Your task to perform on an android device: Go to Google maps Image 0: 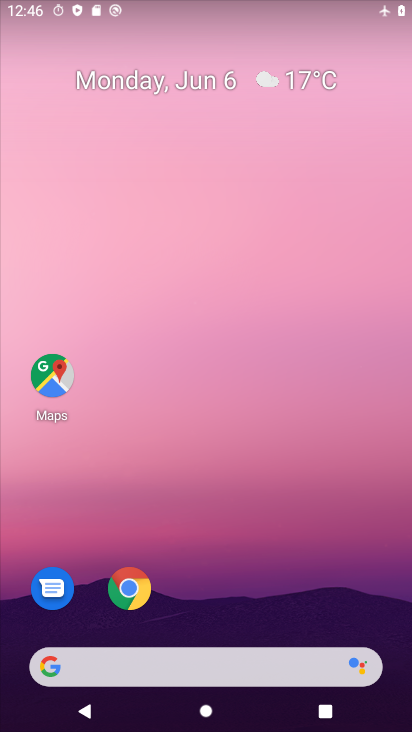
Step 0: click (49, 378)
Your task to perform on an android device: Go to Google maps Image 1: 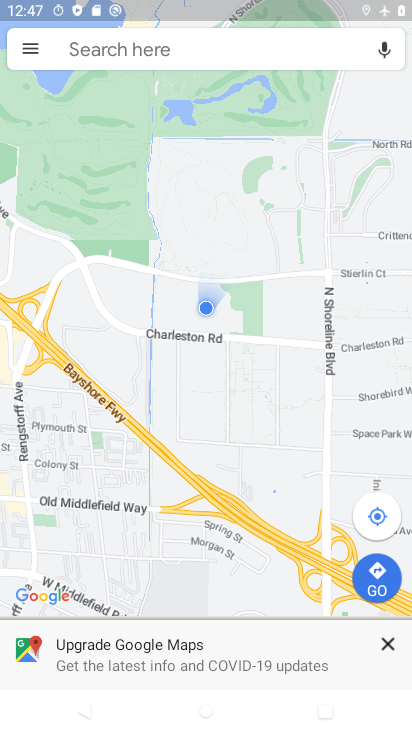
Step 1: task complete